Your task to perform on an android device: Search for Italian restaurants on Maps Image 0: 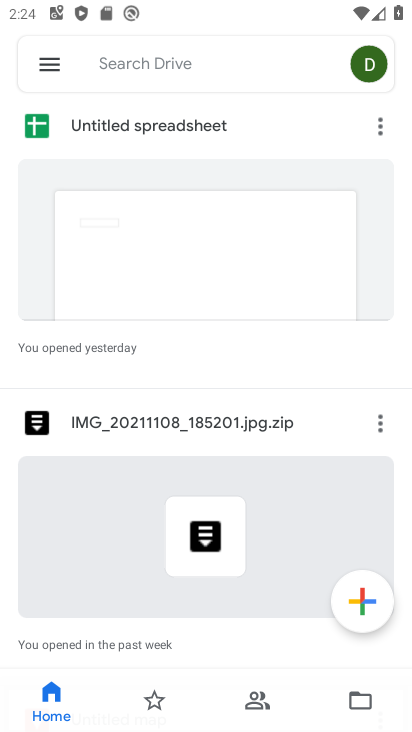
Step 0: press home button
Your task to perform on an android device: Search for Italian restaurants on Maps Image 1: 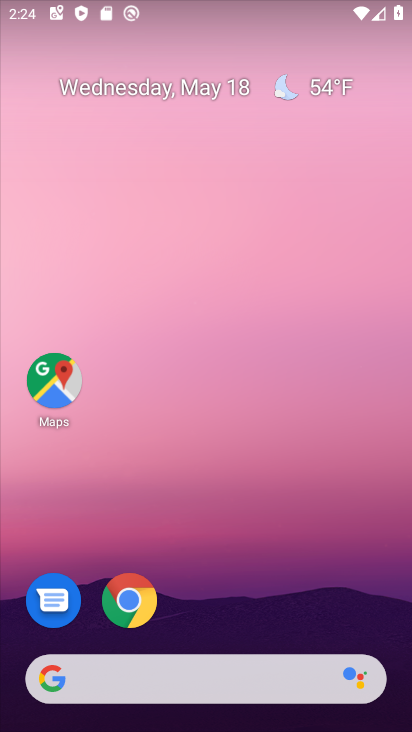
Step 1: click (54, 382)
Your task to perform on an android device: Search for Italian restaurants on Maps Image 2: 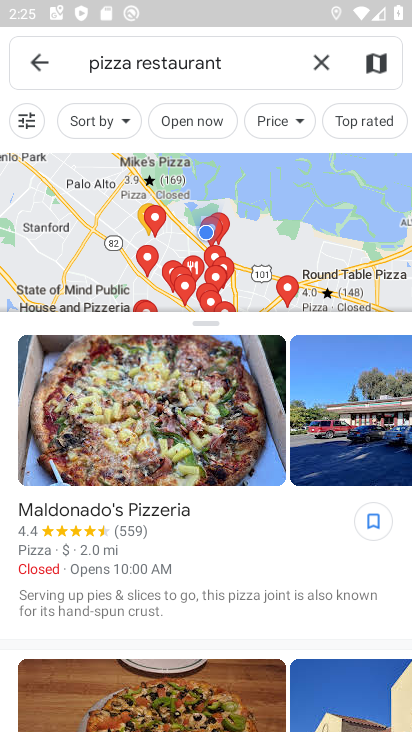
Step 2: click (331, 61)
Your task to perform on an android device: Search for Italian restaurants on Maps Image 3: 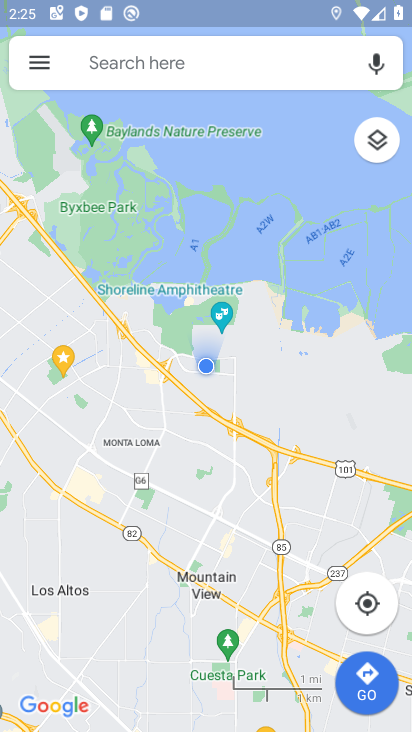
Step 3: click (284, 55)
Your task to perform on an android device: Search for Italian restaurants on Maps Image 4: 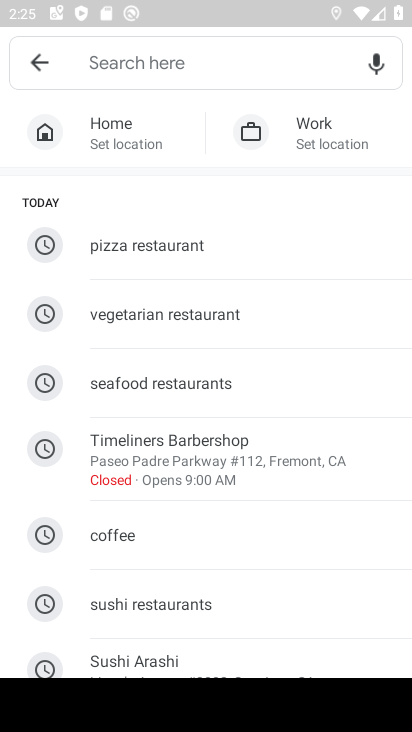
Step 4: type "italian restaurant"
Your task to perform on an android device: Search for Italian restaurants on Maps Image 5: 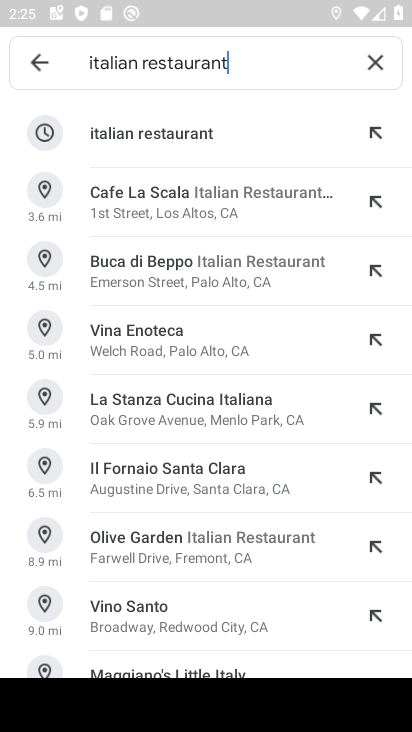
Step 5: click (153, 129)
Your task to perform on an android device: Search for Italian restaurants on Maps Image 6: 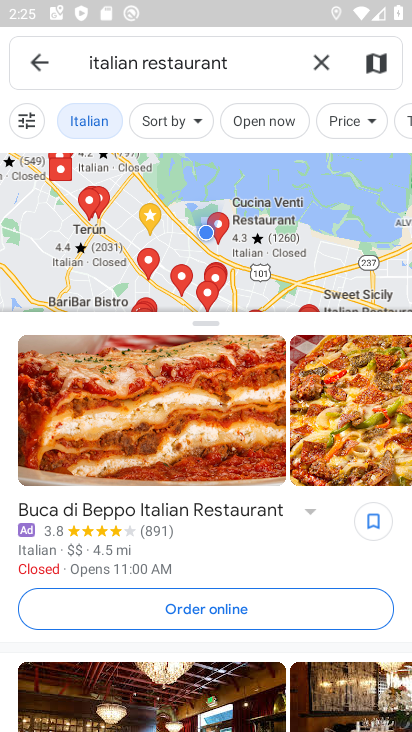
Step 6: task complete